Your task to perform on an android device: change the clock display to digital Image 0: 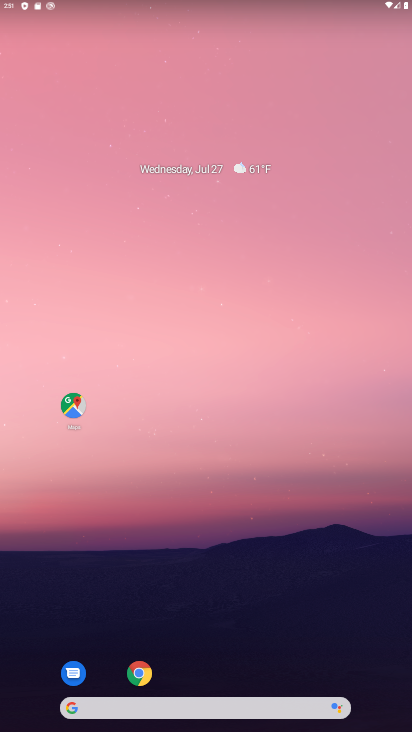
Step 0: drag from (291, 619) to (268, 3)
Your task to perform on an android device: change the clock display to digital Image 1: 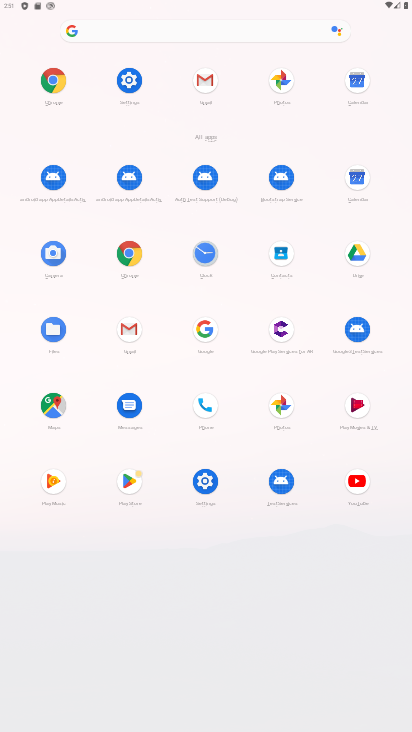
Step 1: click (204, 249)
Your task to perform on an android device: change the clock display to digital Image 2: 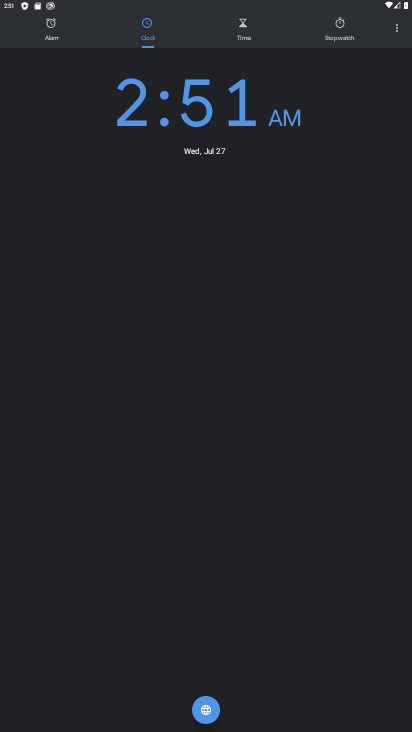
Step 2: click (403, 36)
Your task to perform on an android device: change the clock display to digital Image 3: 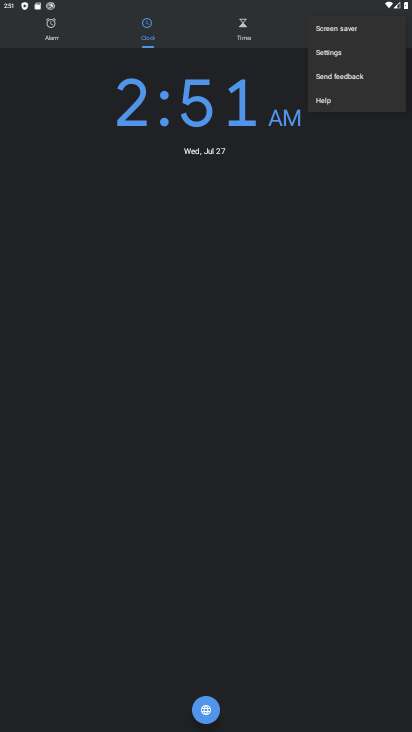
Step 3: click (331, 51)
Your task to perform on an android device: change the clock display to digital Image 4: 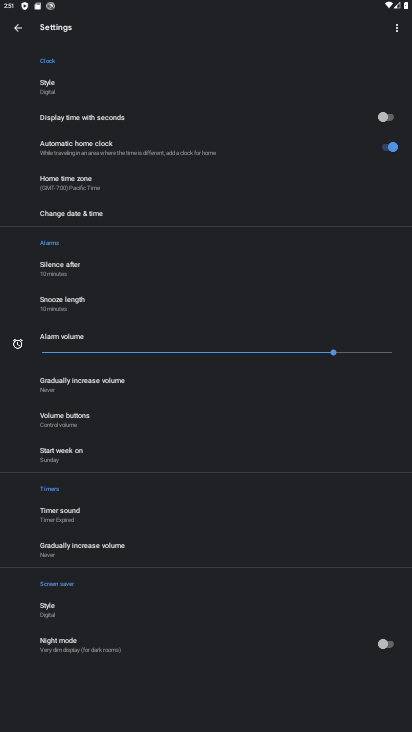
Step 4: click (192, 76)
Your task to perform on an android device: change the clock display to digital Image 5: 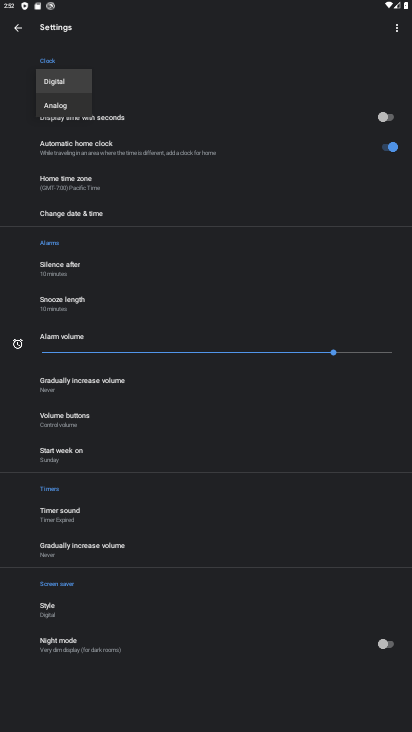
Step 5: task complete